Your task to perform on an android device: Open Chrome and go to settings Image 0: 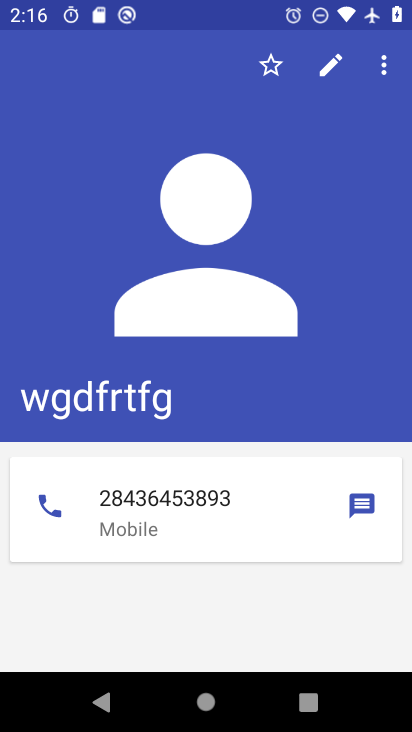
Step 0: press home button
Your task to perform on an android device: Open Chrome and go to settings Image 1: 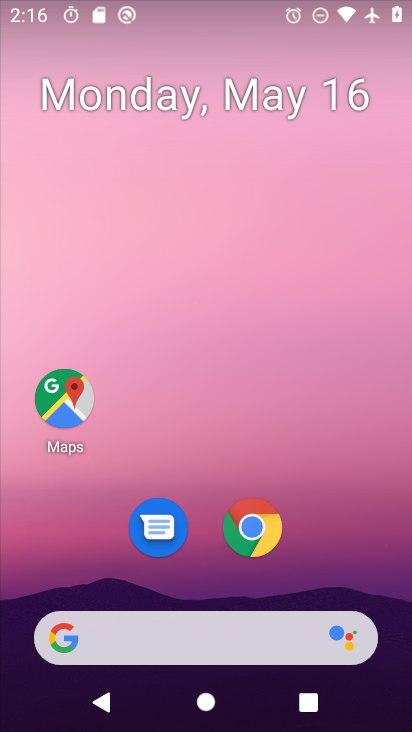
Step 1: click (241, 531)
Your task to perform on an android device: Open Chrome and go to settings Image 2: 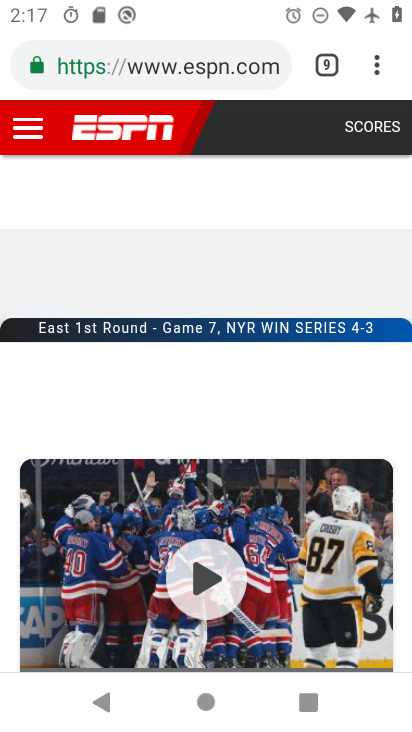
Step 2: task complete